Your task to perform on an android device: Open Android settings Image 0: 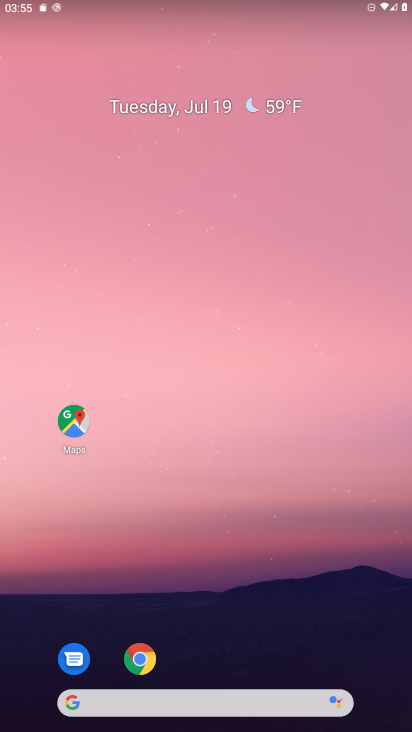
Step 0: drag from (158, 699) to (288, 144)
Your task to perform on an android device: Open Android settings Image 1: 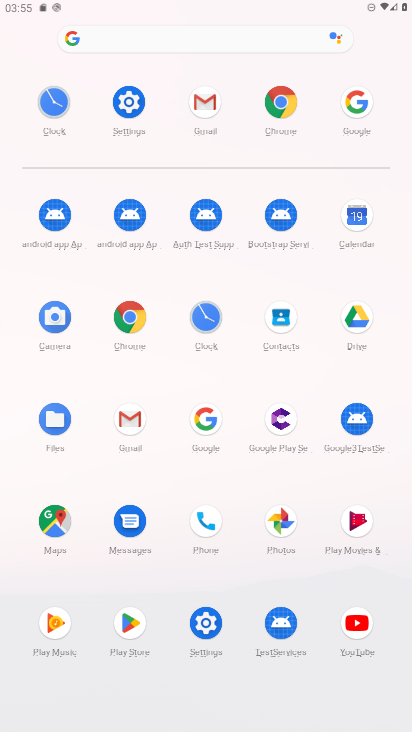
Step 1: click (207, 623)
Your task to perform on an android device: Open Android settings Image 2: 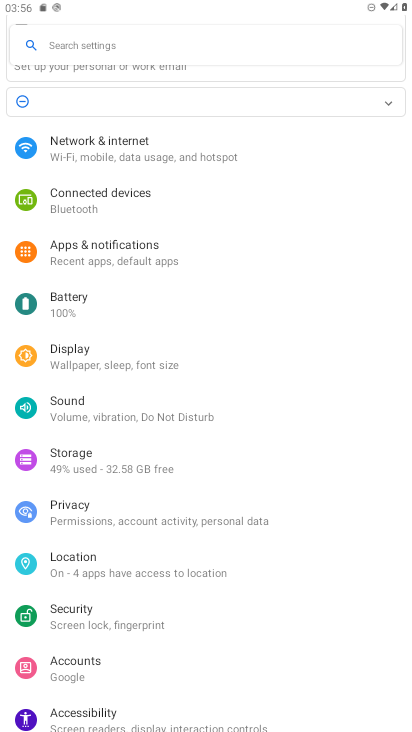
Step 2: task complete